Your task to perform on an android device: turn off picture-in-picture Image 0: 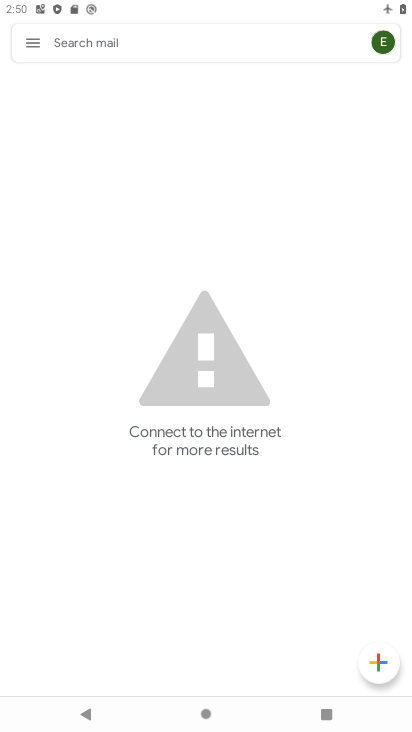
Step 0: press home button
Your task to perform on an android device: turn off picture-in-picture Image 1: 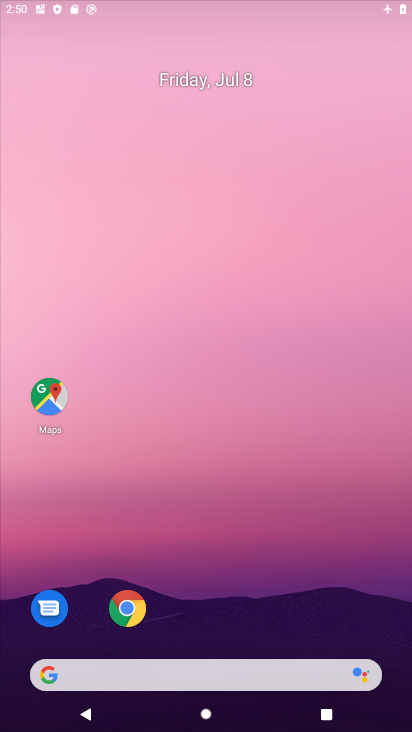
Step 1: drag from (190, 625) to (247, 61)
Your task to perform on an android device: turn off picture-in-picture Image 2: 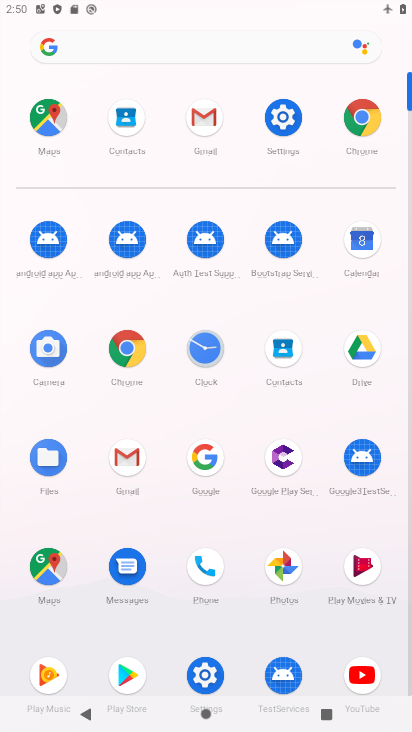
Step 2: click (279, 107)
Your task to perform on an android device: turn off picture-in-picture Image 3: 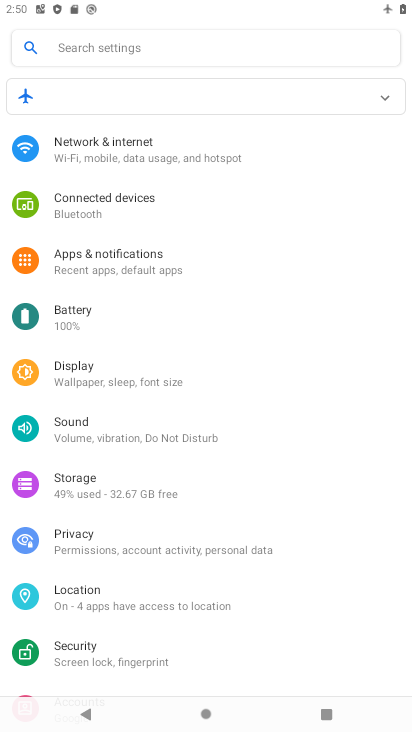
Step 3: click (125, 261)
Your task to perform on an android device: turn off picture-in-picture Image 4: 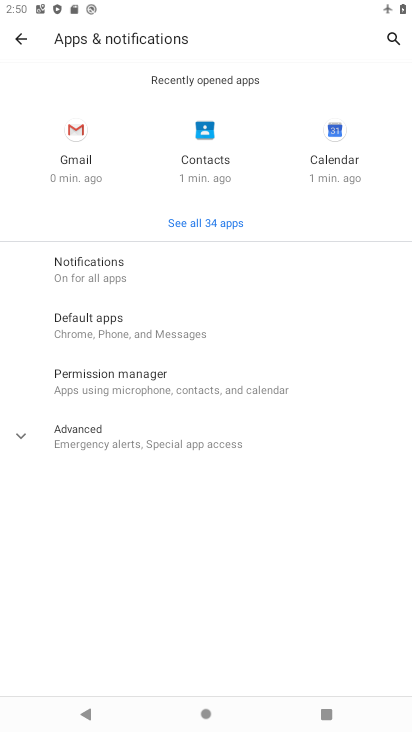
Step 4: click (107, 444)
Your task to perform on an android device: turn off picture-in-picture Image 5: 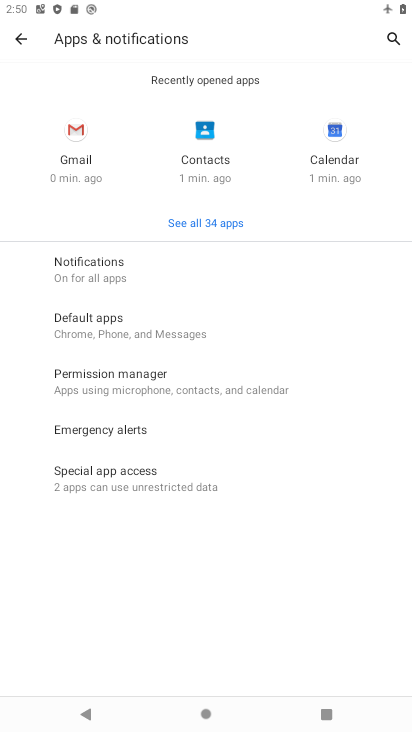
Step 5: click (132, 475)
Your task to perform on an android device: turn off picture-in-picture Image 6: 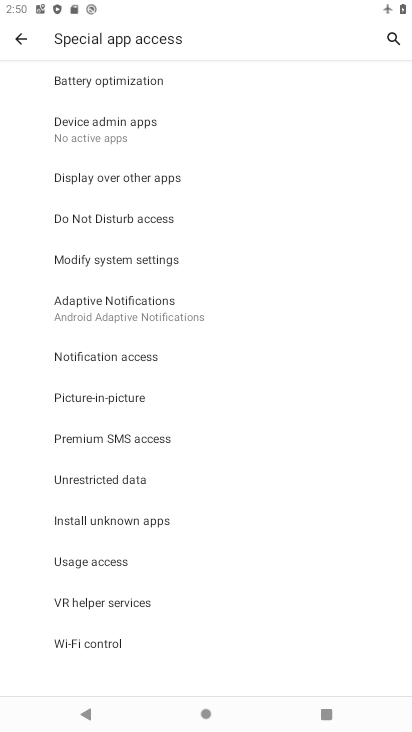
Step 6: click (133, 389)
Your task to perform on an android device: turn off picture-in-picture Image 7: 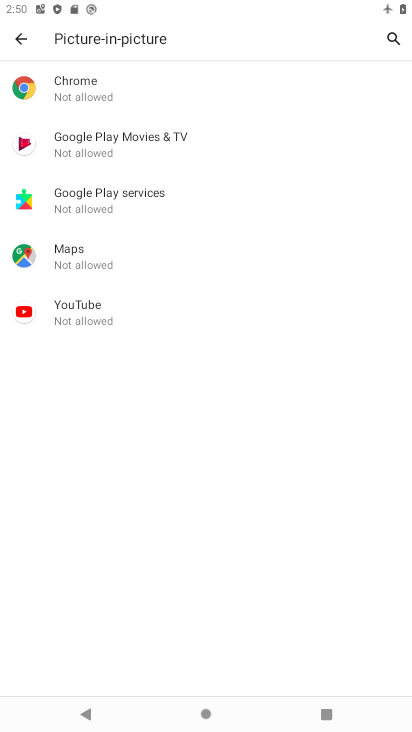
Step 7: click (134, 99)
Your task to perform on an android device: turn off picture-in-picture Image 8: 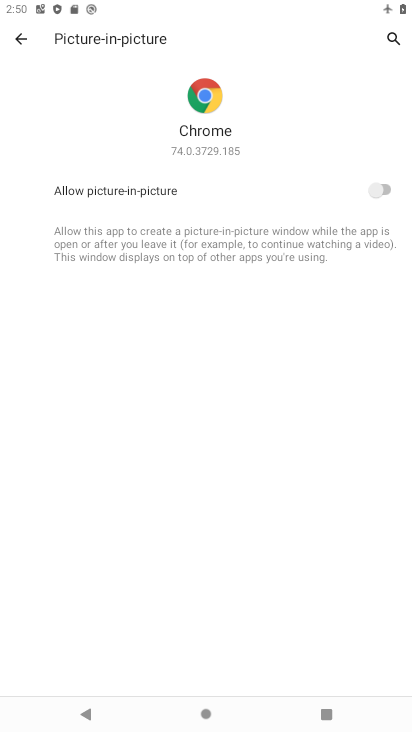
Step 8: task complete